Your task to perform on an android device: Open Google Chrome and click the shortcut for Amazon.com Image 0: 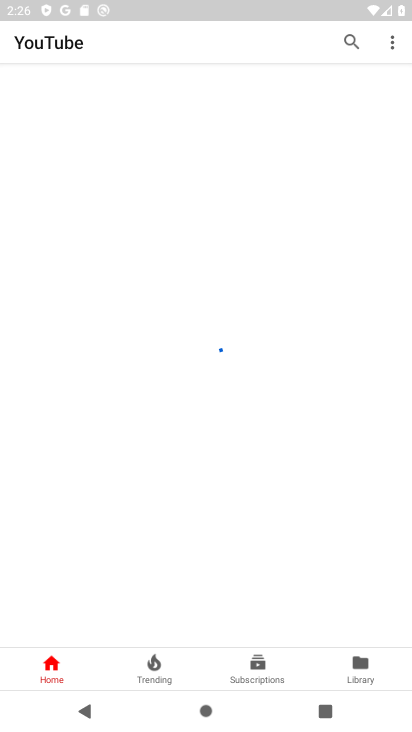
Step 0: press back button
Your task to perform on an android device: Open Google Chrome and click the shortcut for Amazon.com Image 1: 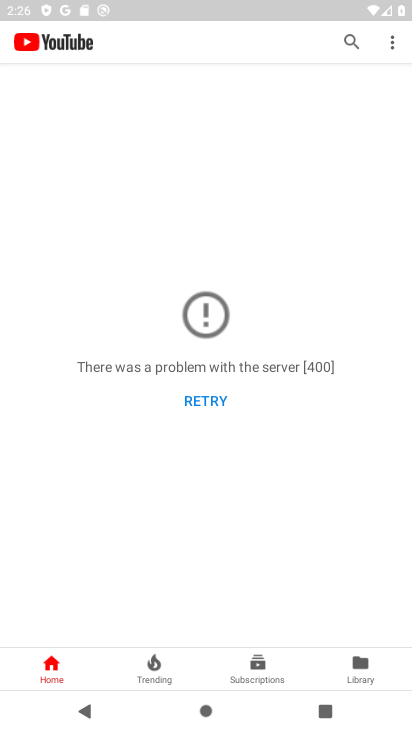
Step 1: press back button
Your task to perform on an android device: Open Google Chrome and click the shortcut for Amazon.com Image 2: 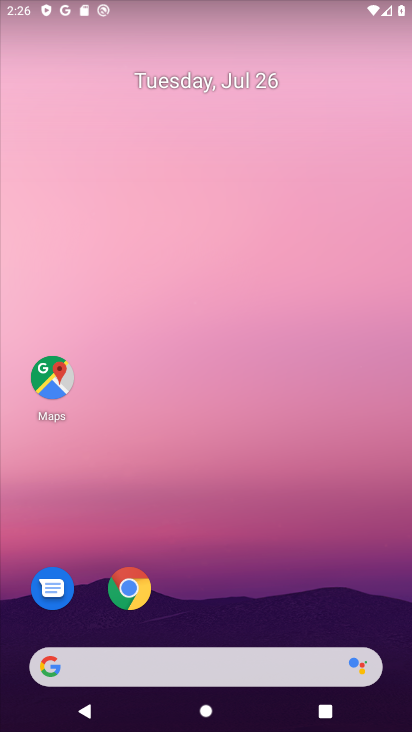
Step 2: press back button
Your task to perform on an android device: Open Google Chrome and click the shortcut for Amazon.com Image 3: 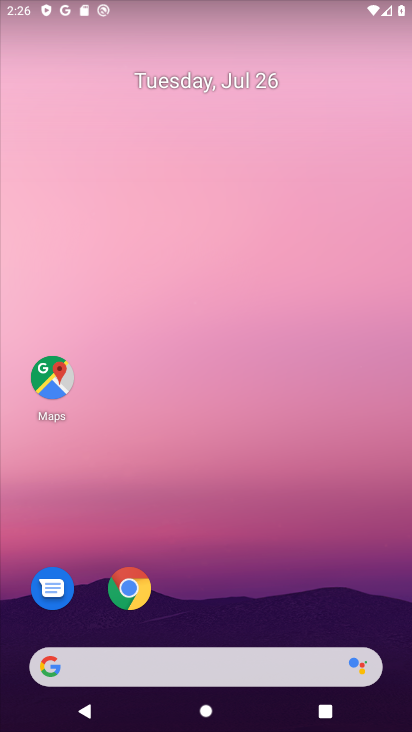
Step 3: click (127, 576)
Your task to perform on an android device: Open Google Chrome and click the shortcut for Amazon.com Image 4: 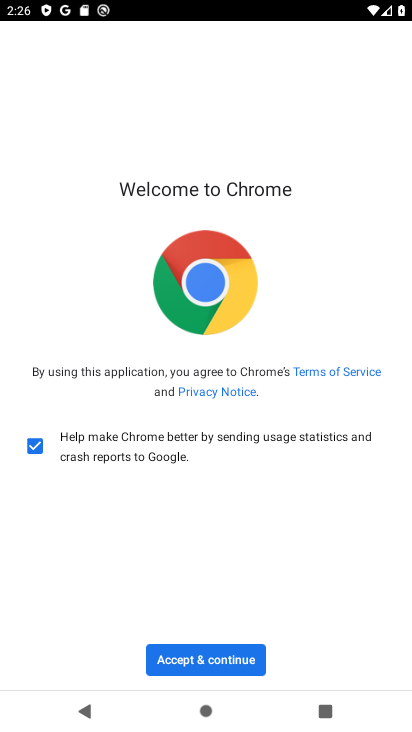
Step 4: click (220, 670)
Your task to perform on an android device: Open Google Chrome and click the shortcut for Amazon.com Image 5: 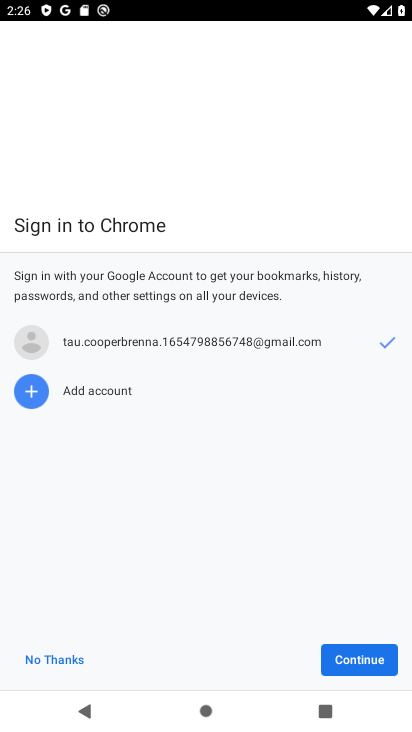
Step 5: click (361, 664)
Your task to perform on an android device: Open Google Chrome and click the shortcut for Amazon.com Image 6: 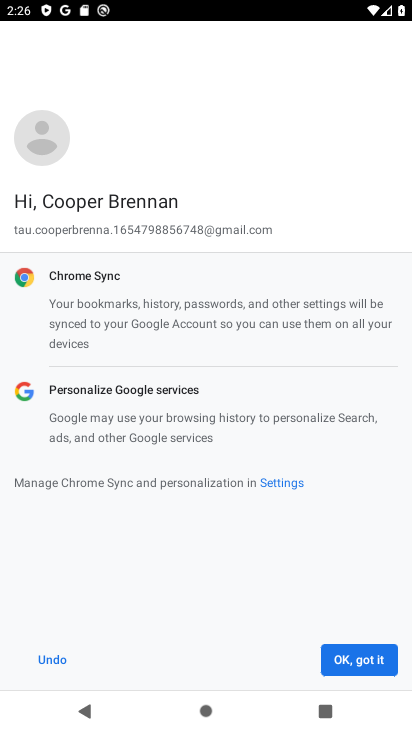
Step 6: click (361, 664)
Your task to perform on an android device: Open Google Chrome and click the shortcut for Amazon.com Image 7: 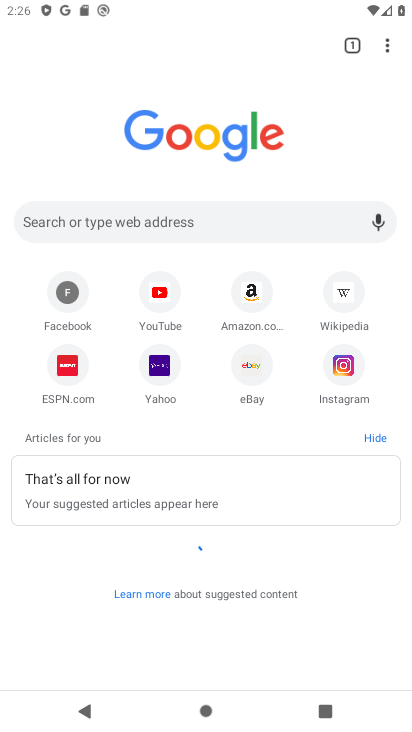
Step 7: click (246, 294)
Your task to perform on an android device: Open Google Chrome and click the shortcut for Amazon.com Image 8: 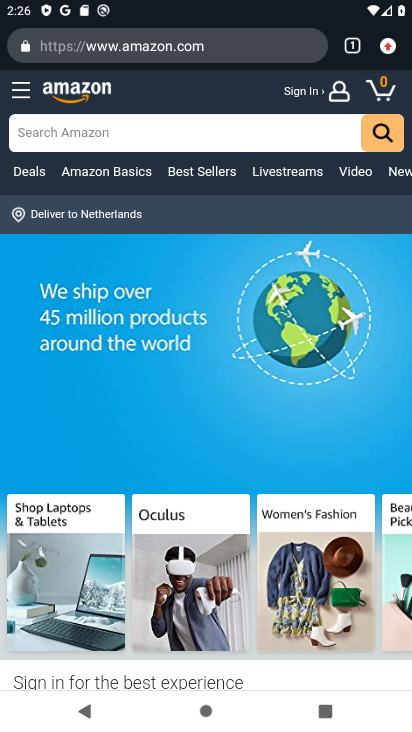
Step 8: task complete